Your task to perform on an android device: Go to eBay Image 0: 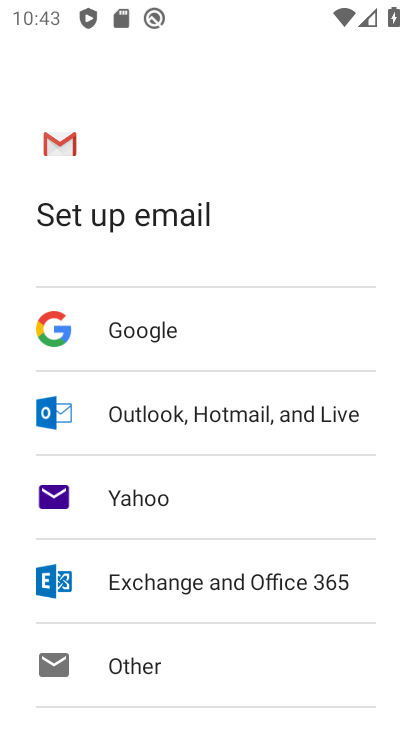
Step 0: press home button
Your task to perform on an android device: Go to eBay Image 1: 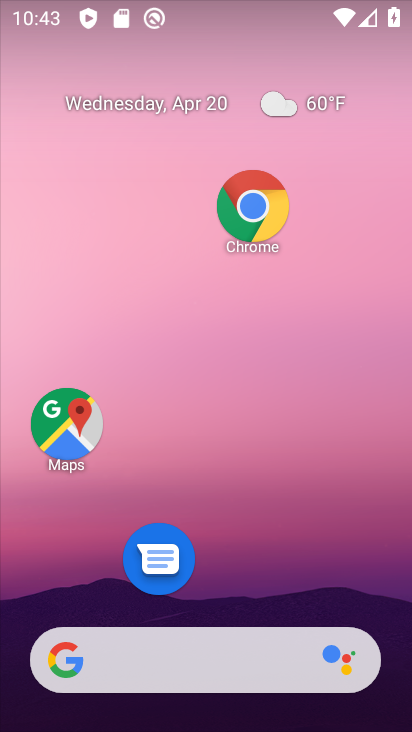
Step 1: drag from (318, 510) to (329, 52)
Your task to perform on an android device: Go to eBay Image 2: 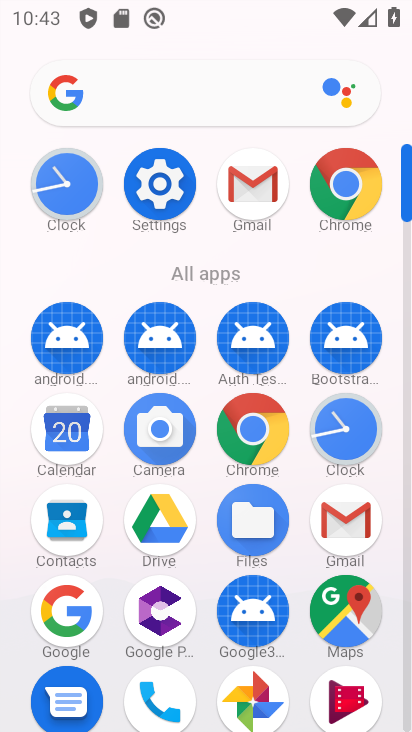
Step 2: click (275, 431)
Your task to perform on an android device: Go to eBay Image 3: 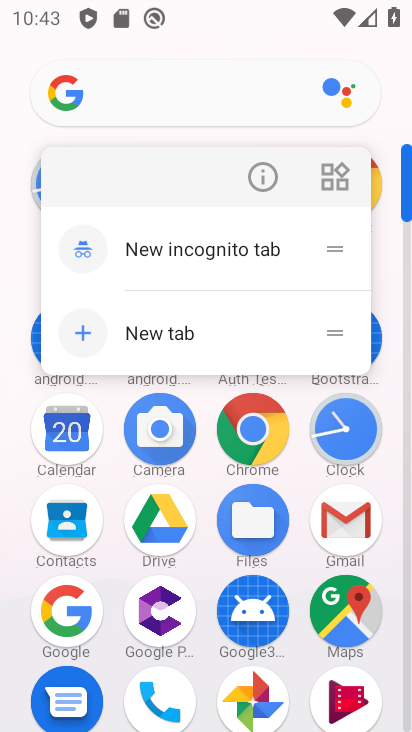
Step 3: click (275, 431)
Your task to perform on an android device: Go to eBay Image 4: 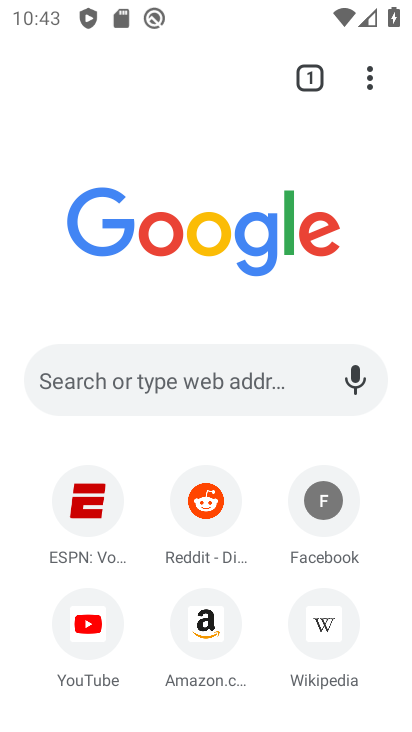
Step 4: drag from (262, 602) to (260, 123)
Your task to perform on an android device: Go to eBay Image 5: 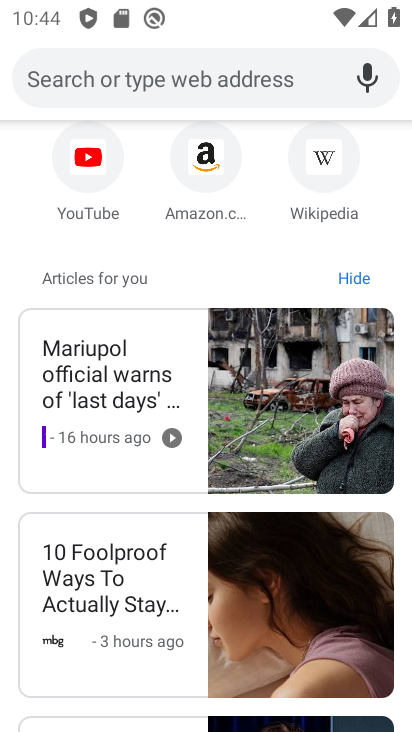
Step 5: drag from (204, 260) to (205, 726)
Your task to perform on an android device: Go to eBay Image 6: 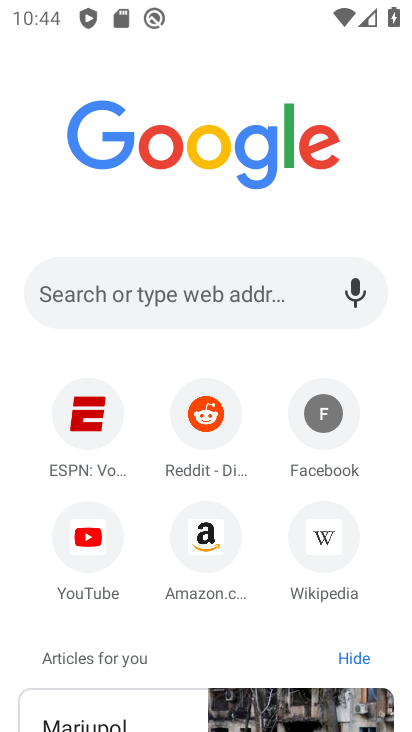
Step 6: click (291, 279)
Your task to perform on an android device: Go to eBay Image 7: 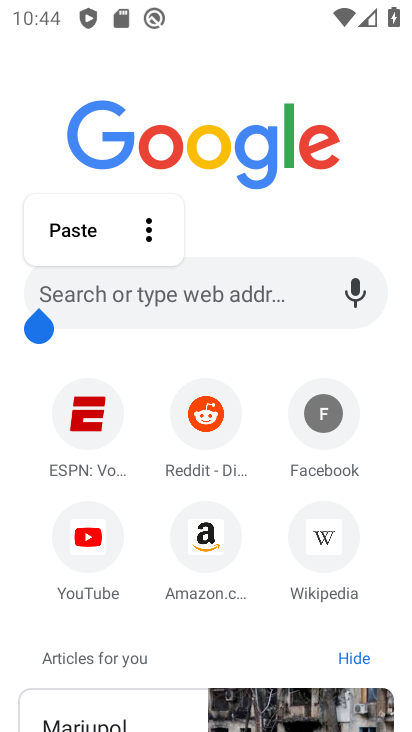
Step 7: click (291, 279)
Your task to perform on an android device: Go to eBay Image 8: 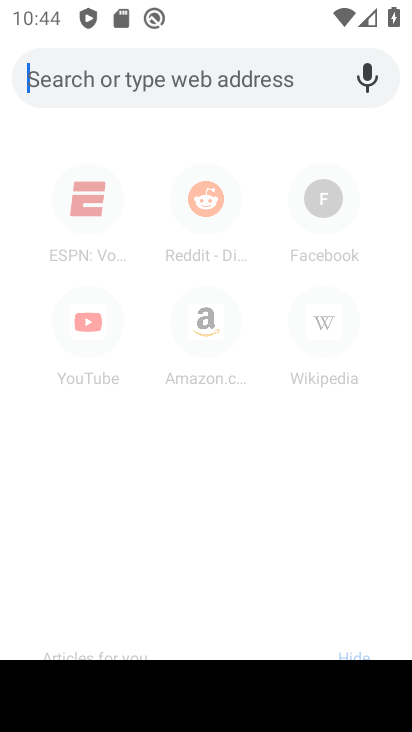
Step 8: type "ebay"
Your task to perform on an android device: Go to eBay Image 9: 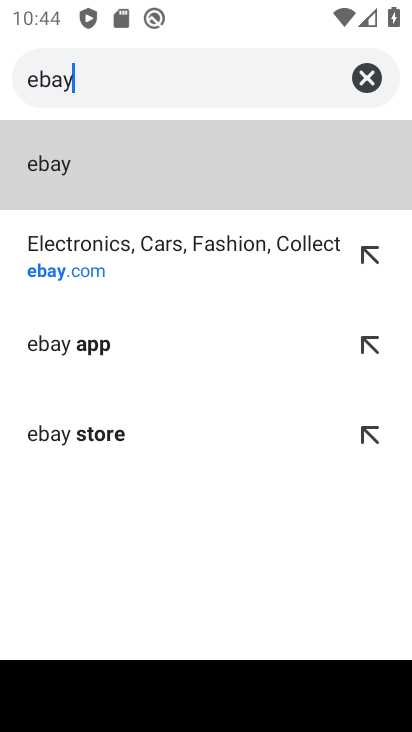
Step 9: click (155, 252)
Your task to perform on an android device: Go to eBay Image 10: 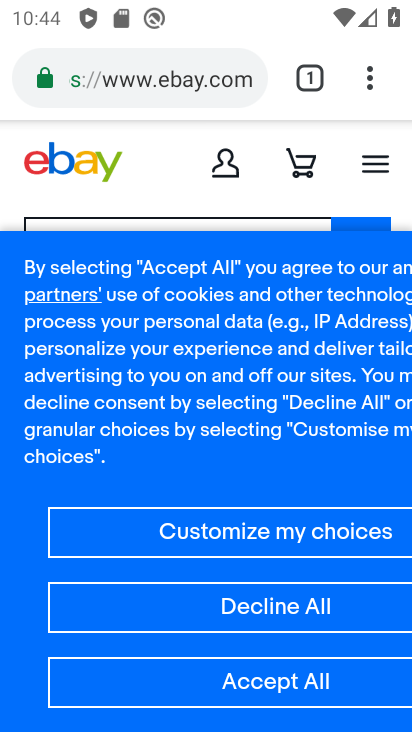
Step 10: click (164, 157)
Your task to perform on an android device: Go to eBay Image 11: 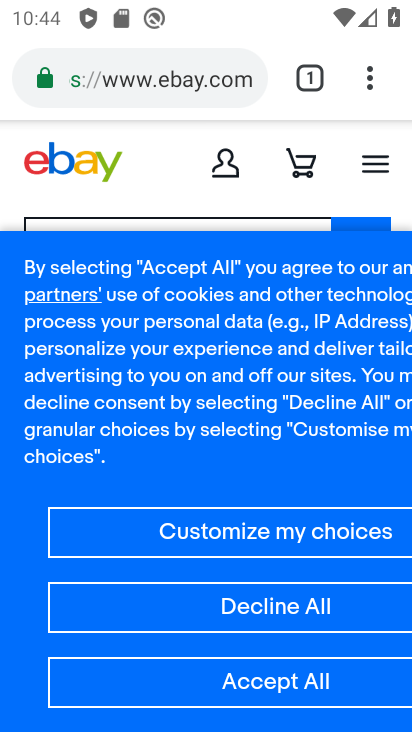
Step 11: task complete